Your task to perform on an android device: toggle sleep mode Image 0: 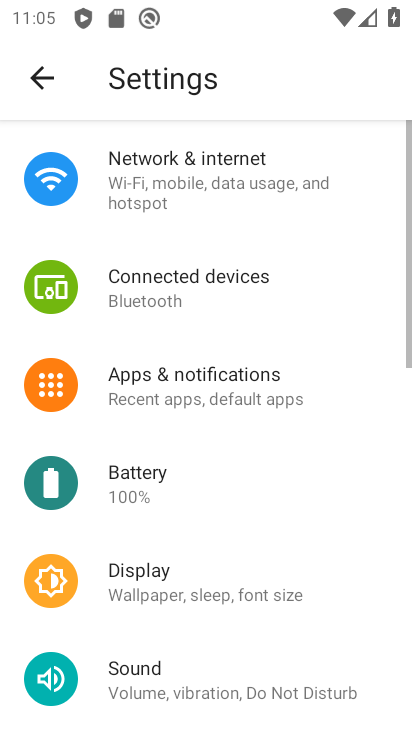
Step 0: press home button
Your task to perform on an android device: toggle sleep mode Image 1: 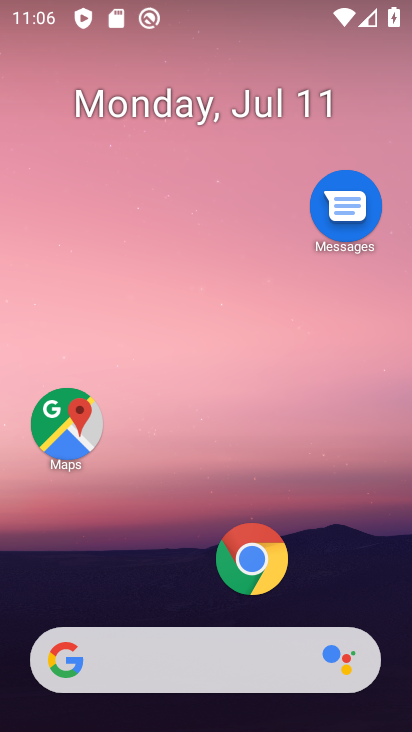
Step 1: drag from (381, 582) to (369, 187)
Your task to perform on an android device: toggle sleep mode Image 2: 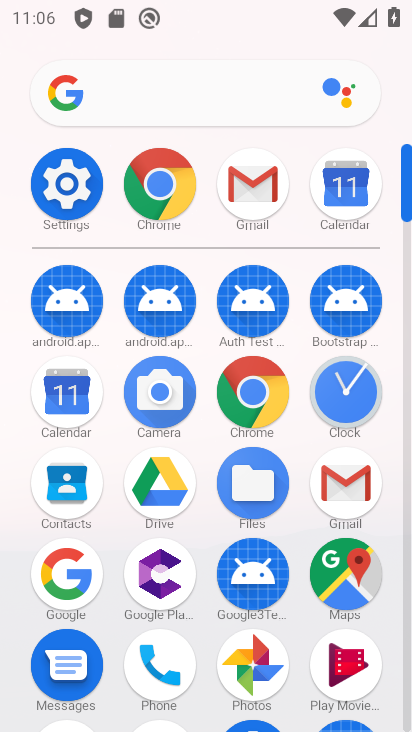
Step 2: click (77, 201)
Your task to perform on an android device: toggle sleep mode Image 3: 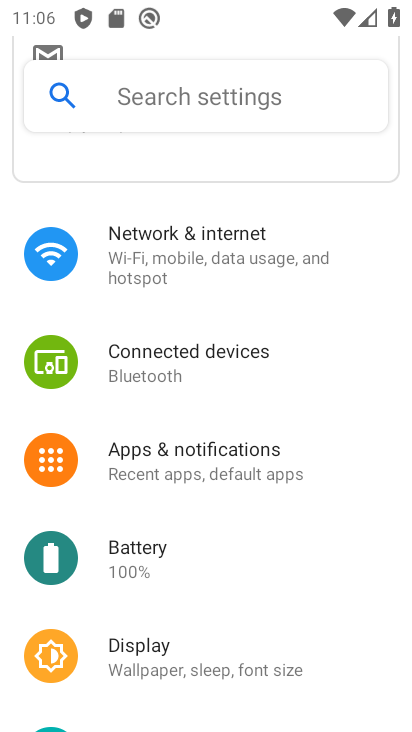
Step 3: drag from (337, 571) to (349, 474)
Your task to perform on an android device: toggle sleep mode Image 4: 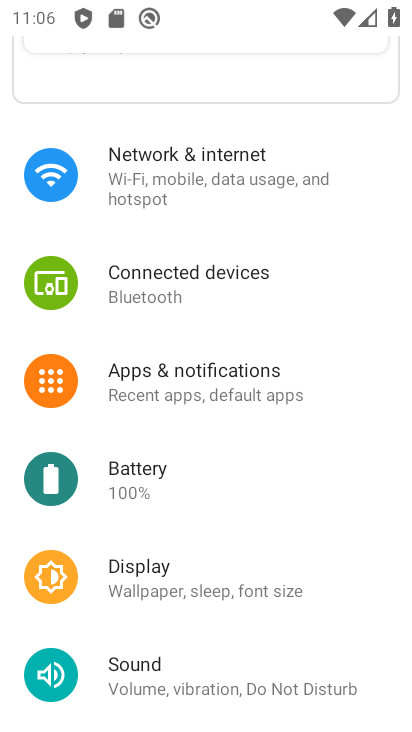
Step 4: drag from (348, 558) to (340, 438)
Your task to perform on an android device: toggle sleep mode Image 5: 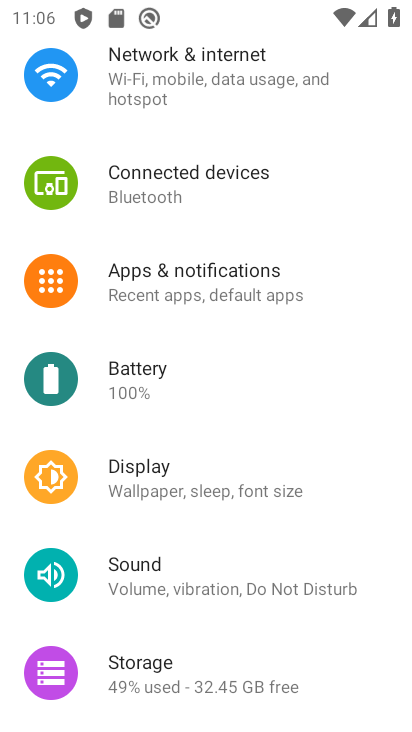
Step 5: drag from (362, 594) to (366, 467)
Your task to perform on an android device: toggle sleep mode Image 6: 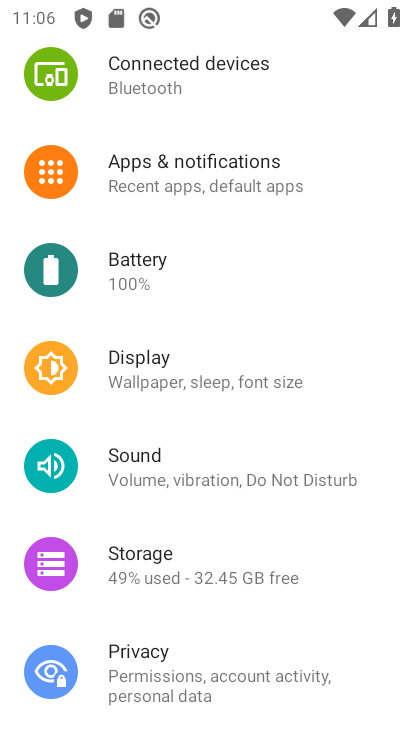
Step 6: drag from (366, 578) to (353, 475)
Your task to perform on an android device: toggle sleep mode Image 7: 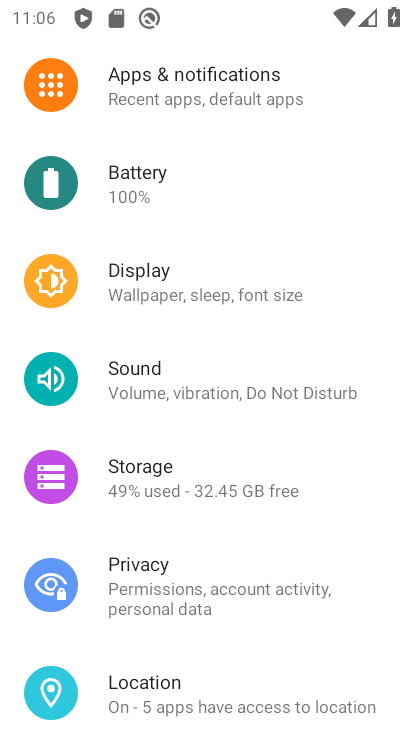
Step 7: drag from (353, 558) to (351, 478)
Your task to perform on an android device: toggle sleep mode Image 8: 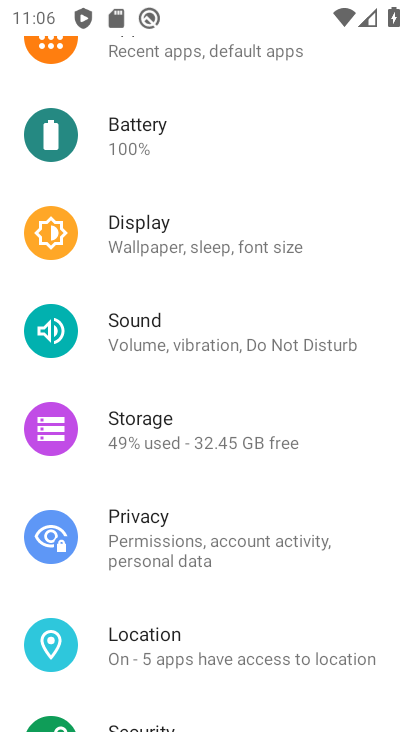
Step 8: drag from (358, 564) to (355, 483)
Your task to perform on an android device: toggle sleep mode Image 9: 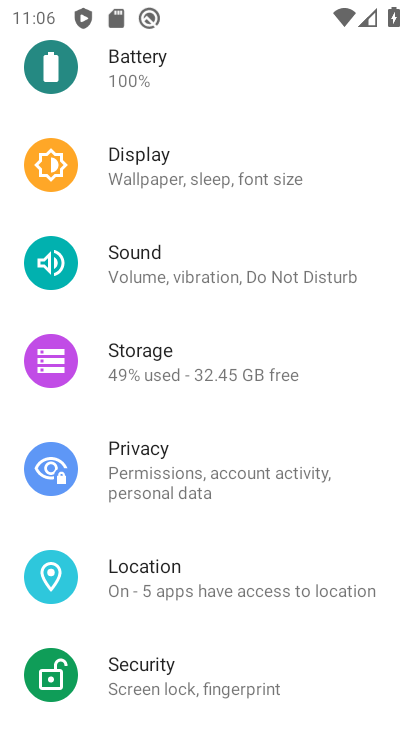
Step 9: drag from (355, 533) to (354, 429)
Your task to perform on an android device: toggle sleep mode Image 10: 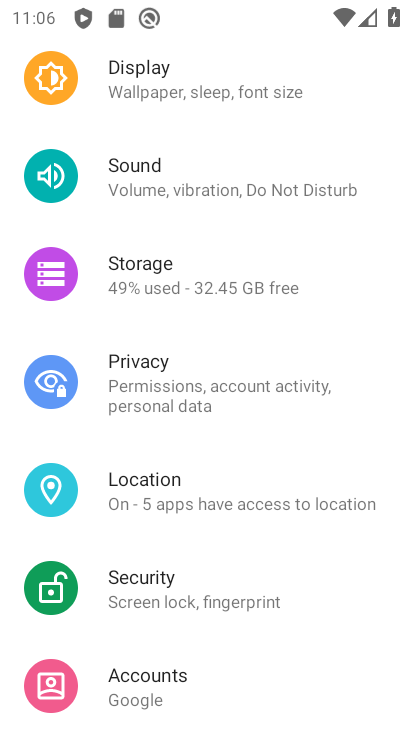
Step 10: drag from (359, 555) to (357, 177)
Your task to perform on an android device: toggle sleep mode Image 11: 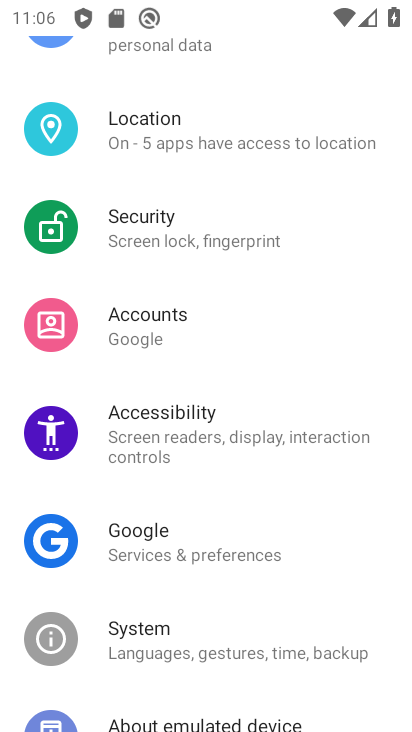
Step 11: drag from (363, 200) to (351, 301)
Your task to perform on an android device: toggle sleep mode Image 12: 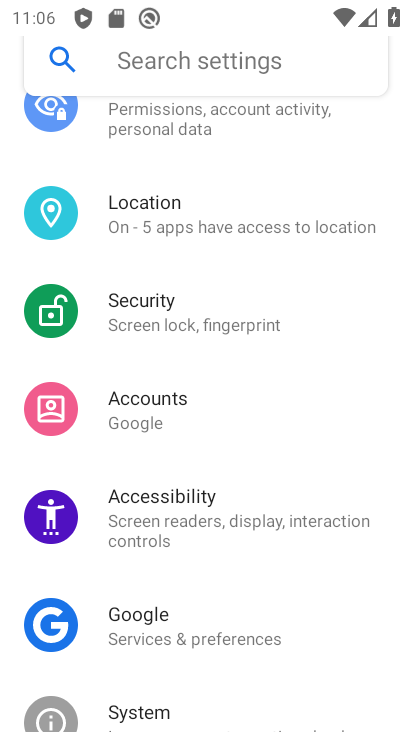
Step 12: drag from (352, 203) to (338, 341)
Your task to perform on an android device: toggle sleep mode Image 13: 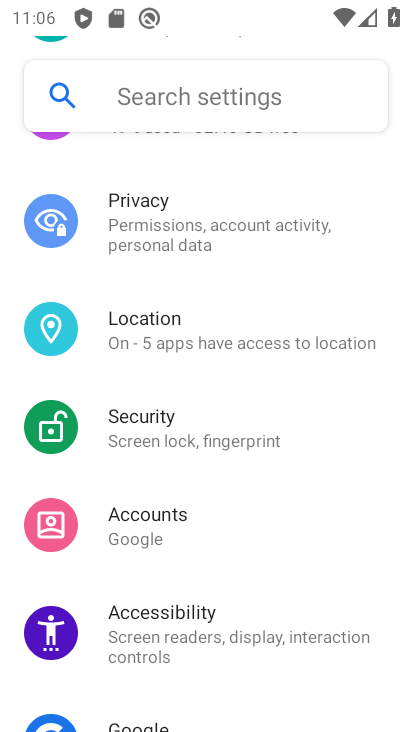
Step 13: drag from (344, 193) to (345, 272)
Your task to perform on an android device: toggle sleep mode Image 14: 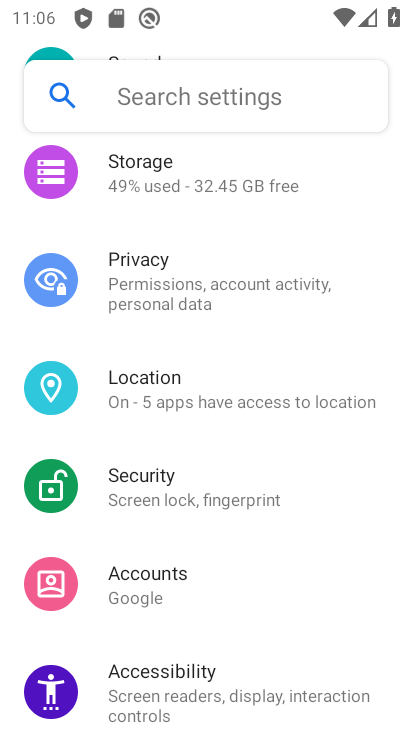
Step 14: drag from (348, 189) to (346, 305)
Your task to perform on an android device: toggle sleep mode Image 15: 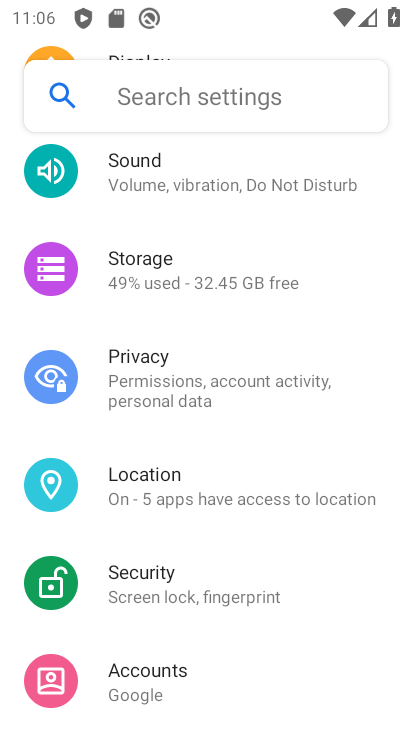
Step 15: drag from (341, 323) to (361, 402)
Your task to perform on an android device: toggle sleep mode Image 16: 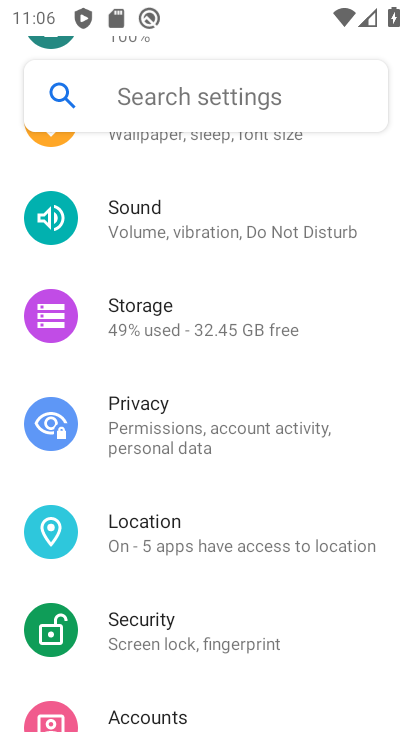
Step 16: drag from (369, 287) to (370, 396)
Your task to perform on an android device: toggle sleep mode Image 17: 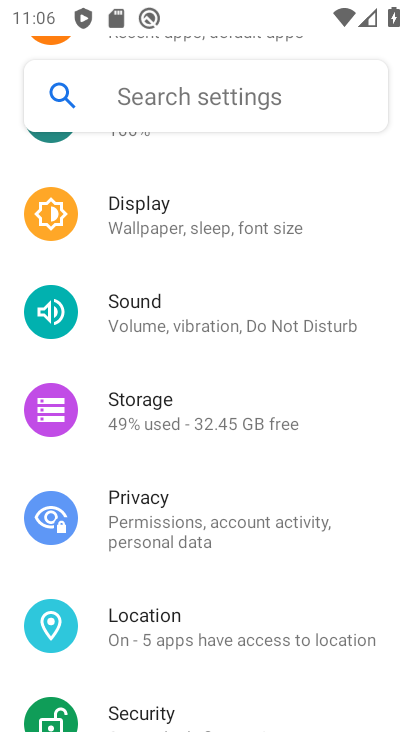
Step 17: click (299, 219)
Your task to perform on an android device: toggle sleep mode Image 18: 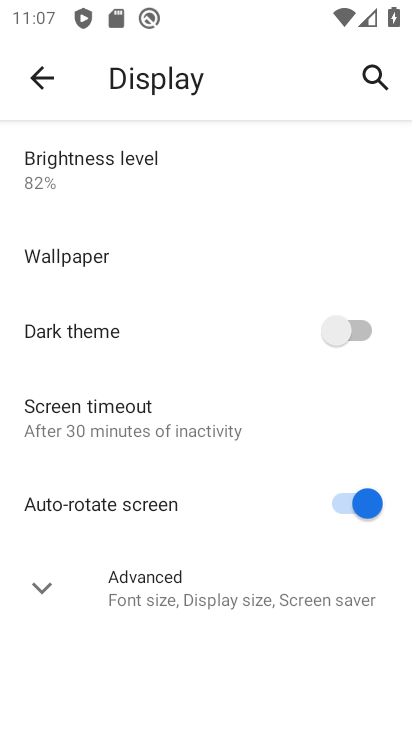
Step 18: click (270, 581)
Your task to perform on an android device: toggle sleep mode Image 19: 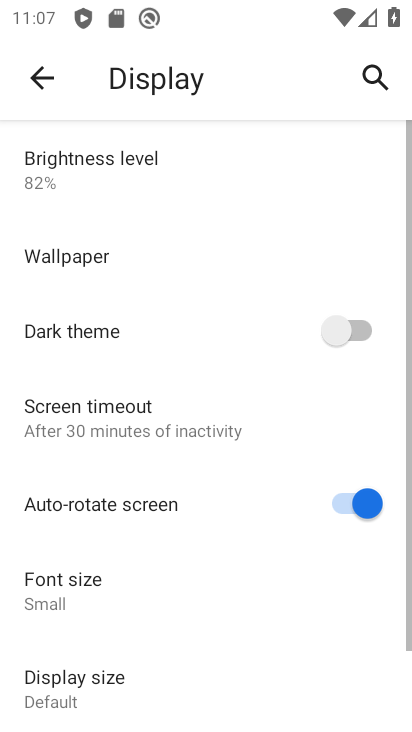
Step 19: task complete